Your task to perform on an android device: Open a new private tab in Chrome Image 0: 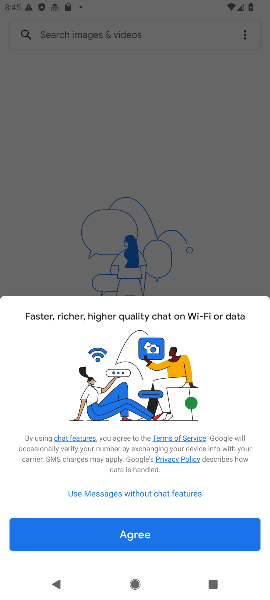
Step 0: press home button
Your task to perform on an android device: Open a new private tab in Chrome Image 1: 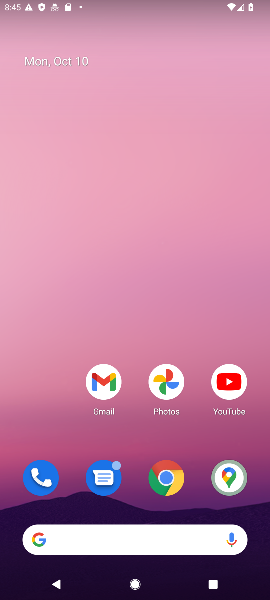
Step 1: click (166, 481)
Your task to perform on an android device: Open a new private tab in Chrome Image 2: 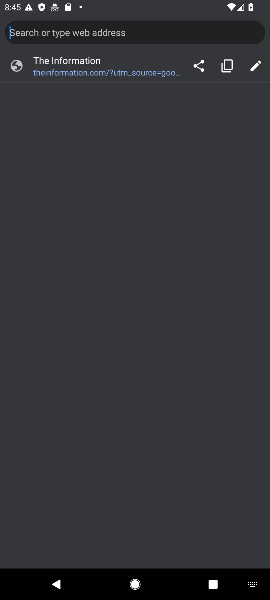
Step 2: click (143, 335)
Your task to perform on an android device: Open a new private tab in Chrome Image 3: 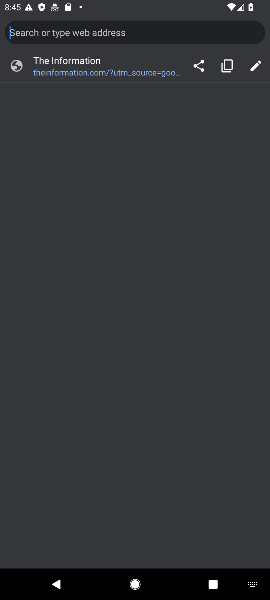
Step 3: press back button
Your task to perform on an android device: Open a new private tab in Chrome Image 4: 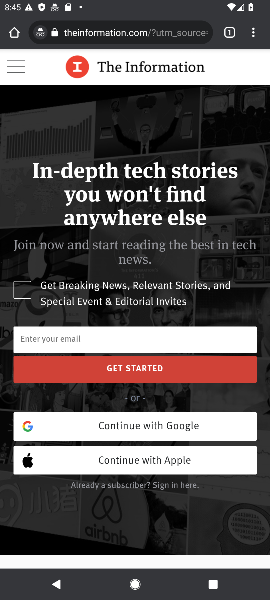
Step 4: click (248, 31)
Your task to perform on an android device: Open a new private tab in Chrome Image 5: 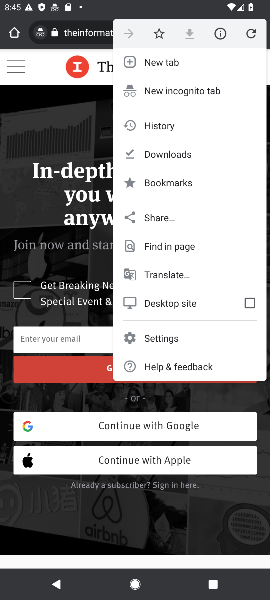
Step 5: click (197, 98)
Your task to perform on an android device: Open a new private tab in Chrome Image 6: 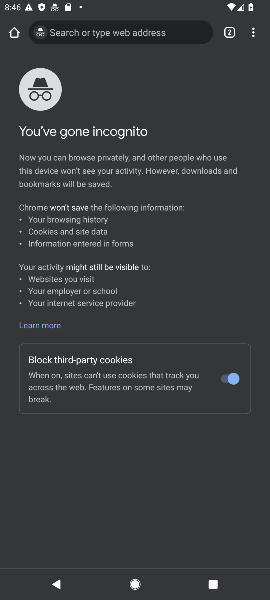
Step 6: task complete